Your task to perform on an android device: Open Yahoo.com Image 0: 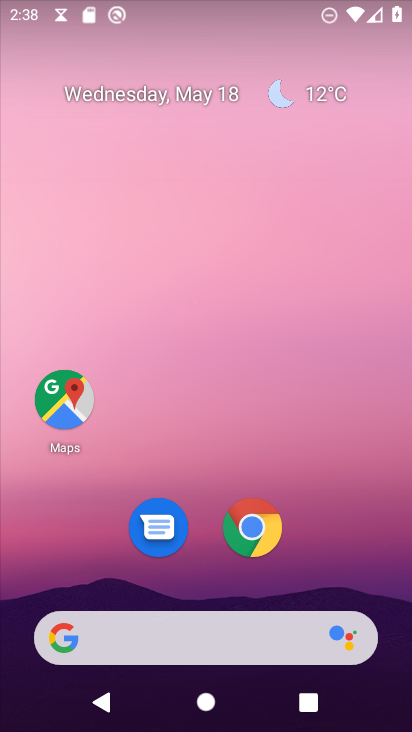
Step 0: click (257, 526)
Your task to perform on an android device: Open Yahoo.com Image 1: 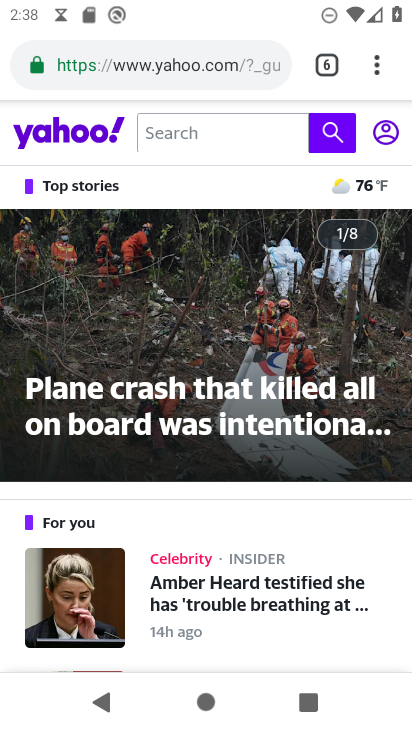
Step 1: task complete